Your task to perform on an android device: change notification settings in the gmail app Image 0: 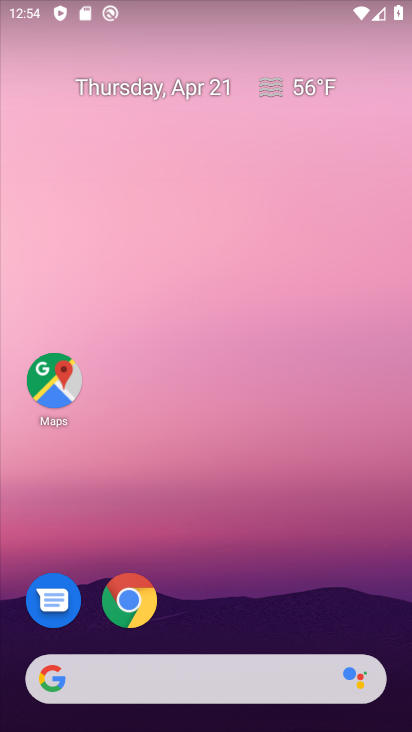
Step 0: click (357, 270)
Your task to perform on an android device: change notification settings in the gmail app Image 1: 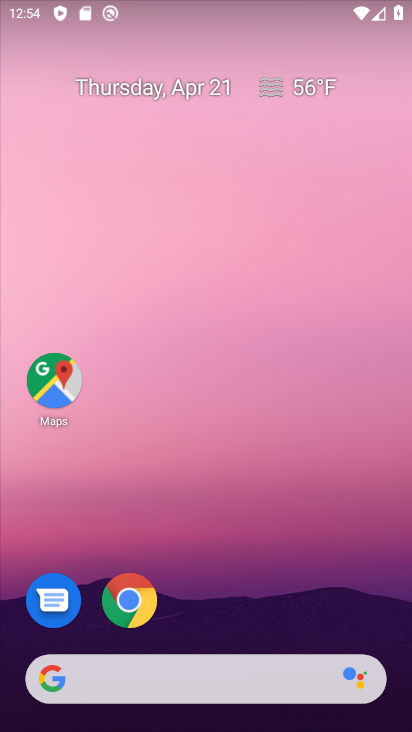
Step 1: drag from (366, 584) to (357, 309)
Your task to perform on an android device: change notification settings in the gmail app Image 2: 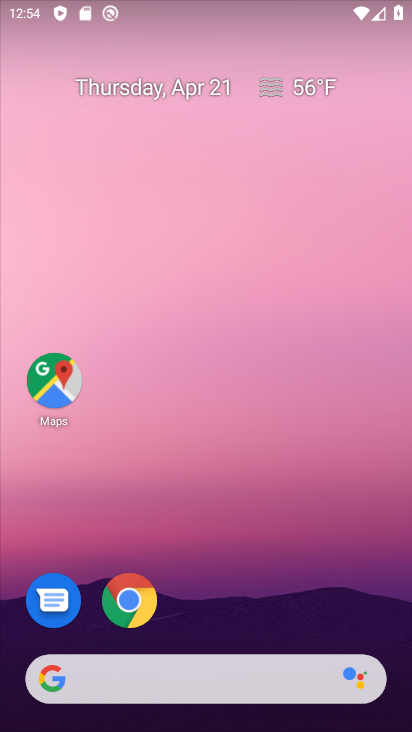
Step 2: drag from (388, 632) to (383, 240)
Your task to perform on an android device: change notification settings in the gmail app Image 3: 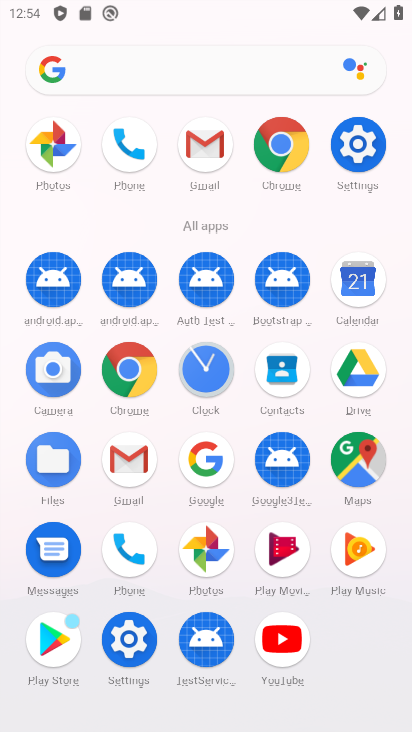
Step 3: click (197, 141)
Your task to perform on an android device: change notification settings in the gmail app Image 4: 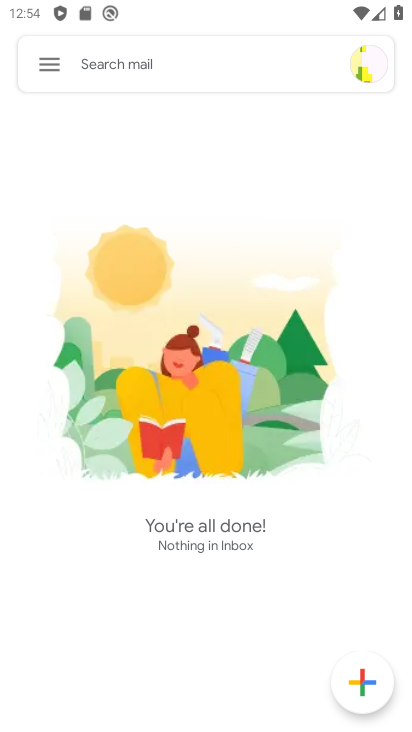
Step 4: click (41, 69)
Your task to perform on an android device: change notification settings in the gmail app Image 5: 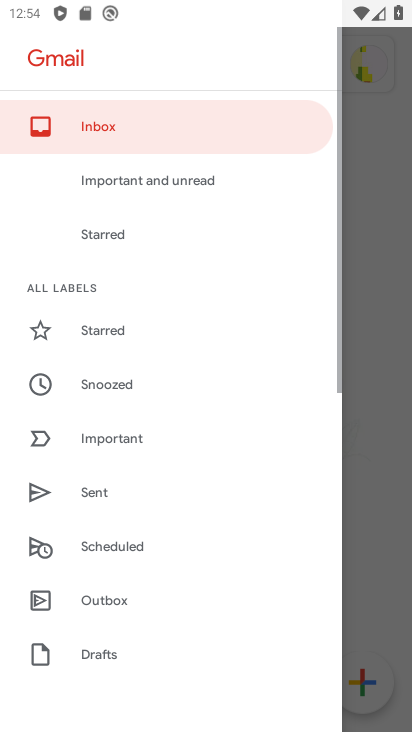
Step 5: drag from (260, 462) to (251, 327)
Your task to perform on an android device: change notification settings in the gmail app Image 6: 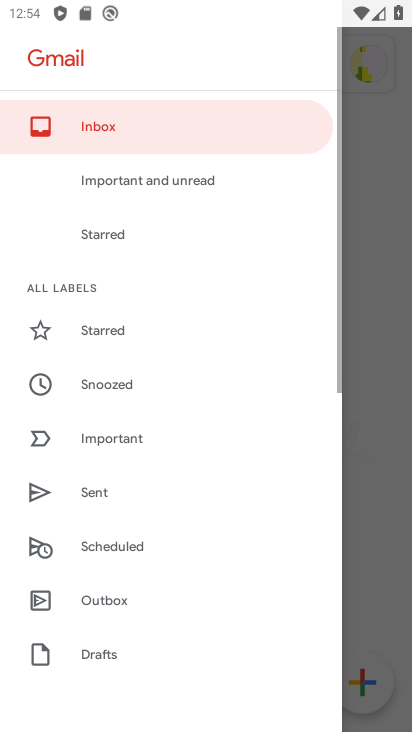
Step 6: drag from (281, 596) to (280, 201)
Your task to perform on an android device: change notification settings in the gmail app Image 7: 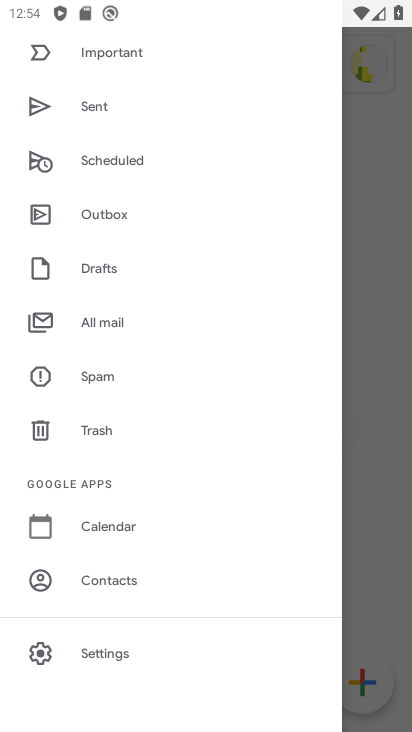
Step 7: click (111, 660)
Your task to perform on an android device: change notification settings in the gmail app Image 8: 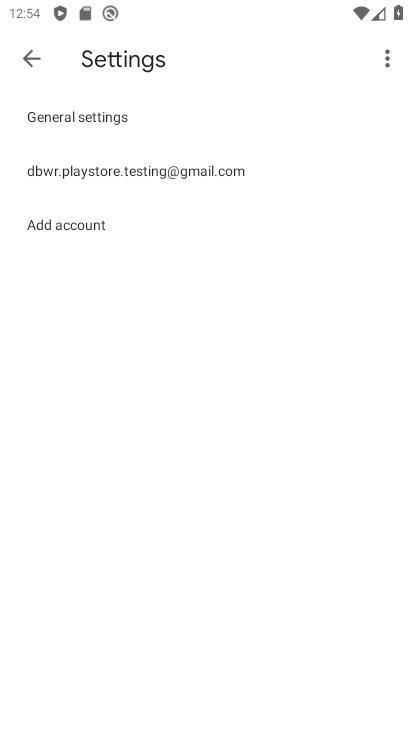
Step 8: click (77, 120)
Your task to perform on an android device: change notification settings in the gmail app Image 9: 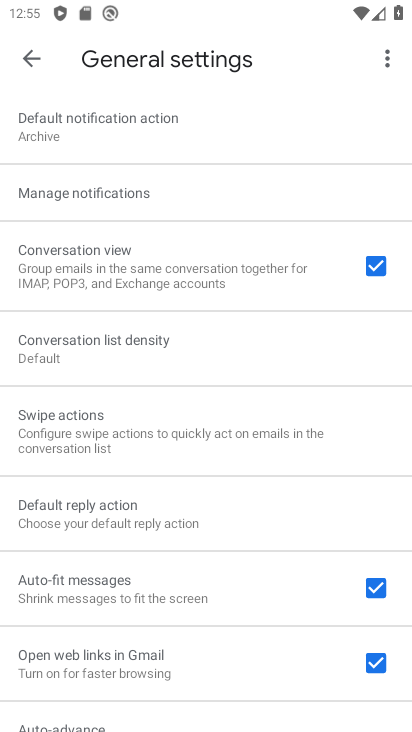
Step 9: drag from (198, 659) to (210, 320)
Your task to perform on an android device: change notification settings in the gmail app Image 10: 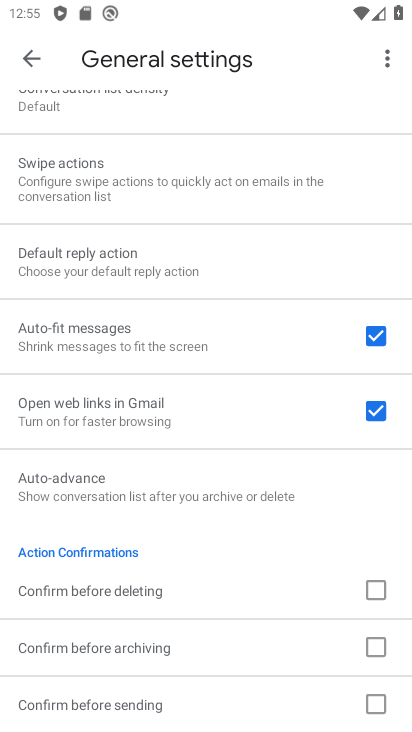
Step 10: drag from (239, 132) to (223, 470)
Your task to perform on an android device: change notification settings in the gmail app Image 11: 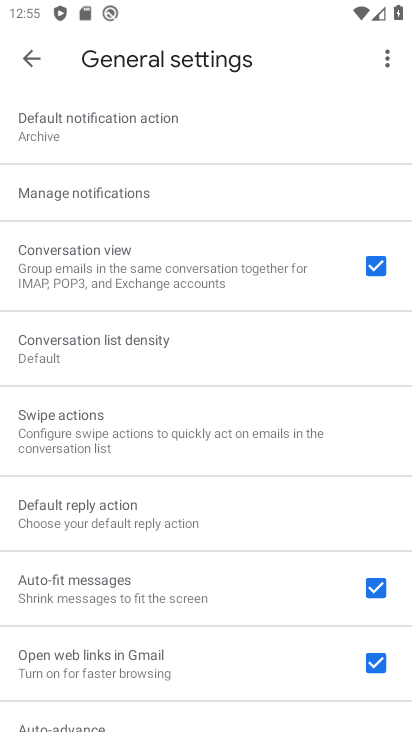
Step 11: click (116, 188)
Your task to perform on an android device: change notification settings in the gmail app Image 12: 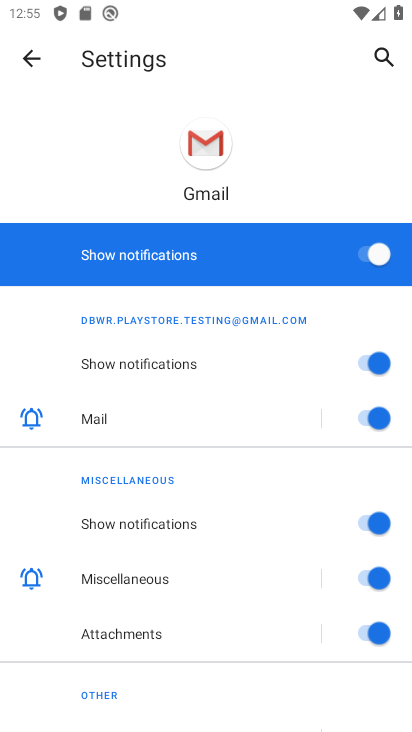
Step 12: click (357, 254)
Your task to perform on an android device: change notification settings in the gmail app Image 13: 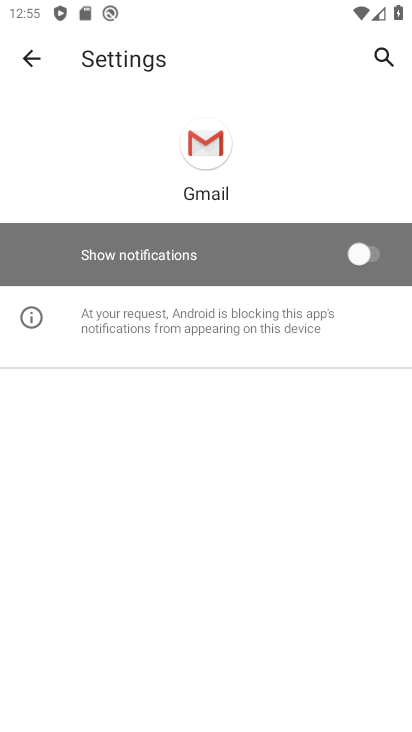
Step 13: task complete